Your task to perform on an android device: Go to battery settings Image 0: 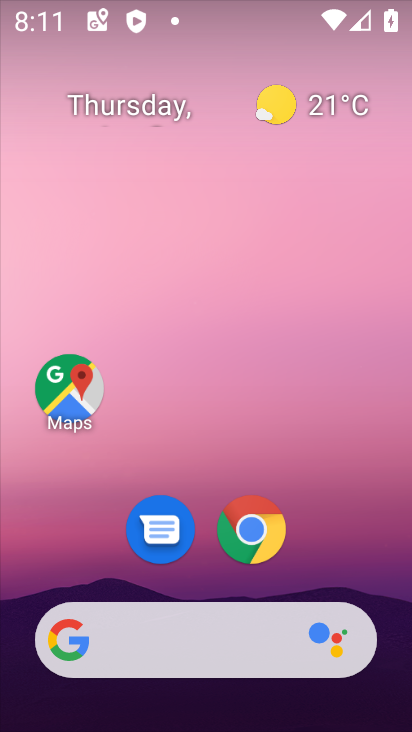
Step 0: drag from (191, 716) to (228, 73)
Your task to perform on an android device: Go to battery settings Image 1: 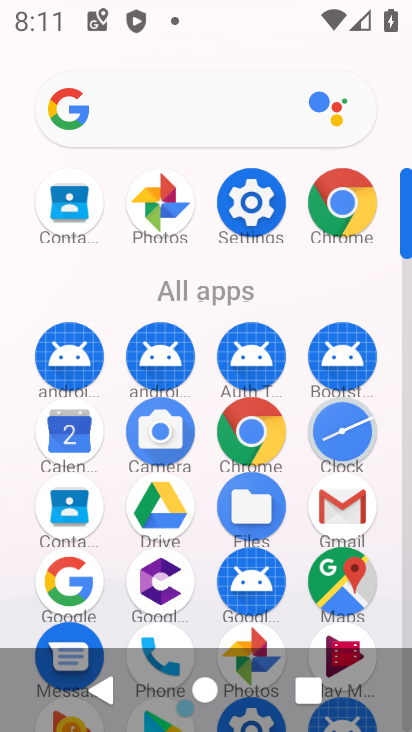
Step 1: click (262, 186)
Your task to perform on an android device: Go to battery settings Image 2: 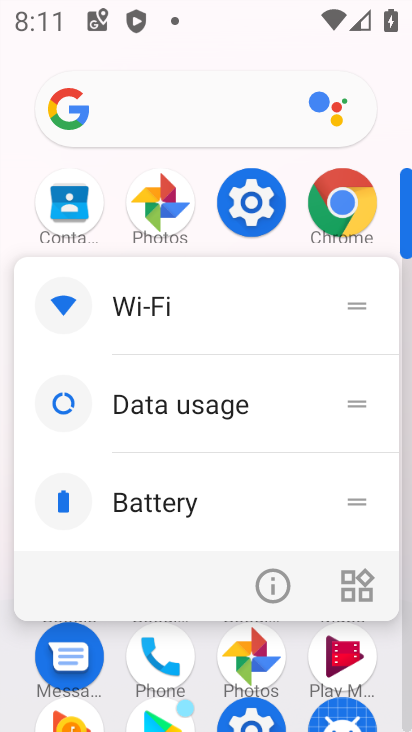
Step 2: click (255, 195)
Your task to perform on an android device: Go to battery settings Image 3: 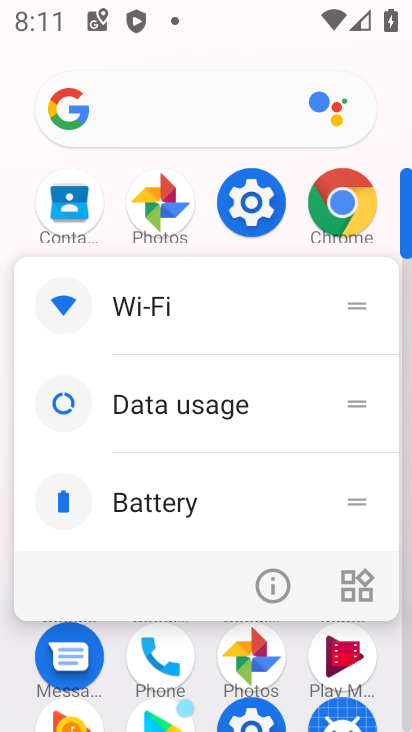
Step 3: click (255, 195)
Your task to perform on an android device: Go to battery settings Image 4: 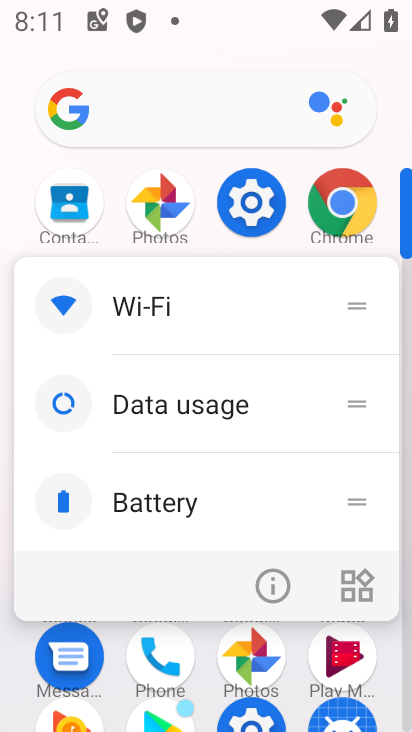
Step 4: click (255, 195)
Your task to perform on an android device: Go to battery settings Image 5: 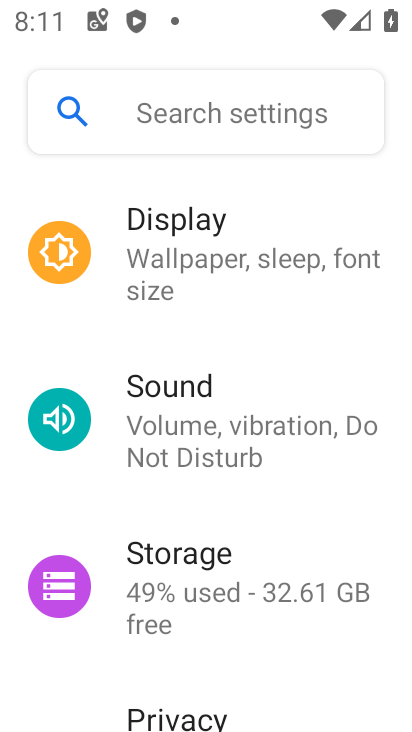
Step 5: drag from (258, 656) to (296, 15)
Your task to perform on an android device: Go to battery settings Image 6: 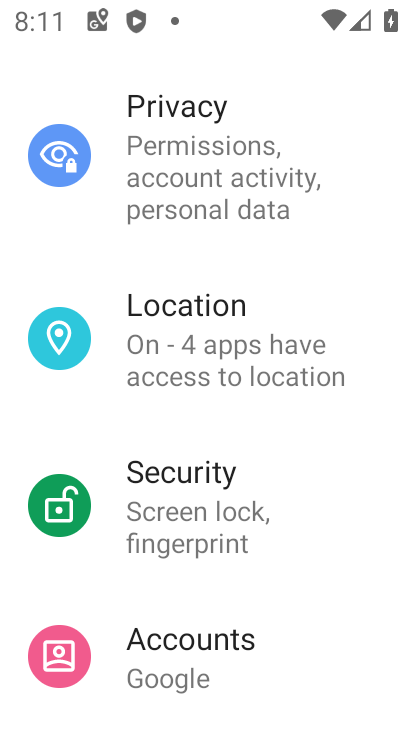
Step 6: drag from (271, 675) to (105, 730)
Your task to perform on an android device: Go to battery settings Image 7: 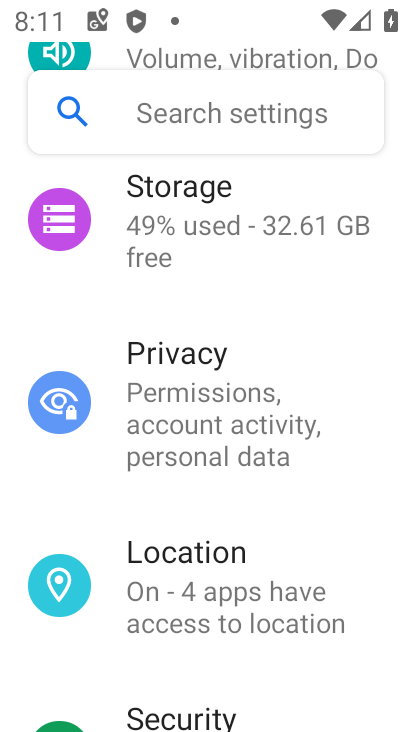
Step 7: drag from (337, 209) to (313, 719)
Your task to perform on an android device: Go to battery settings Image 8: 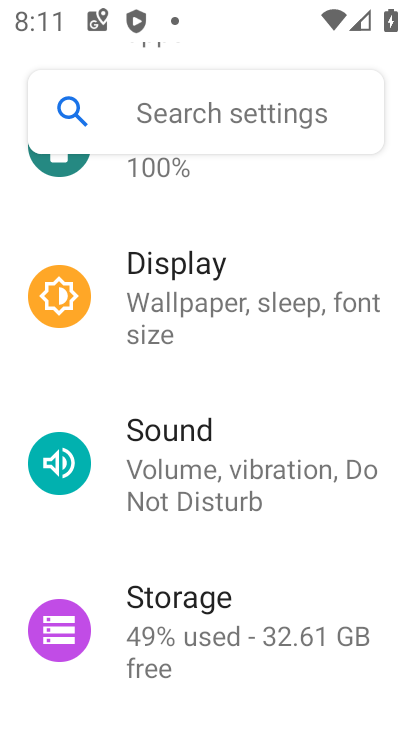
Step 8: click (146, 164)
Your task to perform on an android device: Go to battery settings Image 9: 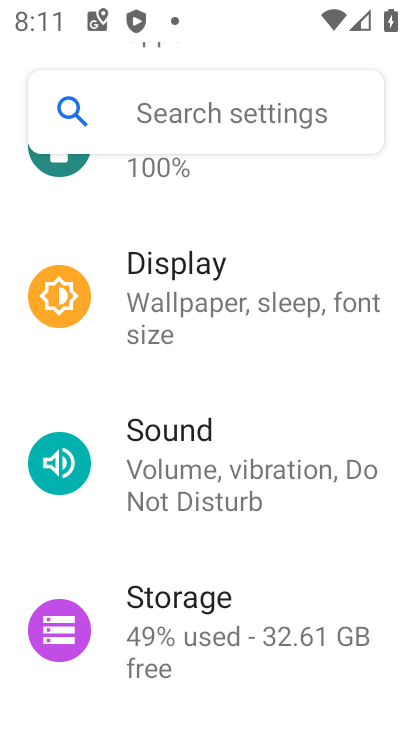
Step 9: click (146, 164)
Your task to perform on an android device: Go to battery settings Image 10: 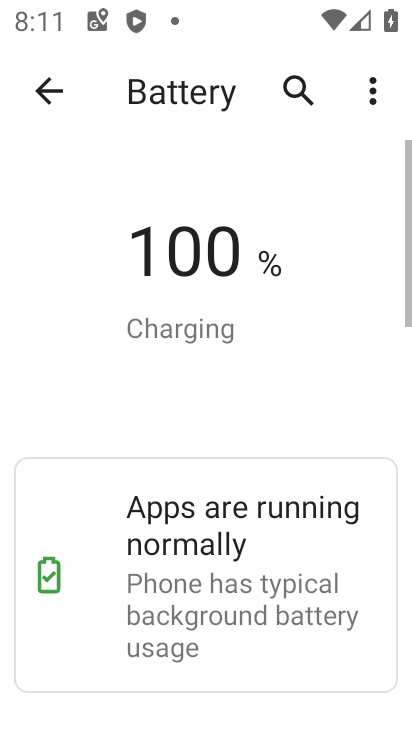
Step 10: task complete